Your task to perform on an android device: Go to calendar. Show me events next week Image 0: 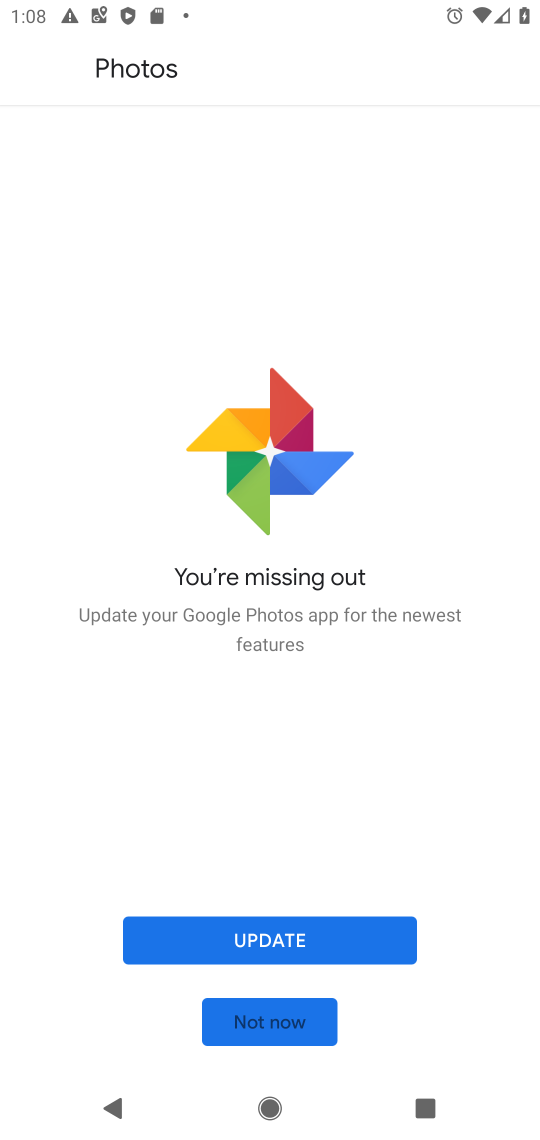
Step 0: press home button
Your task to perform on an android device: Go to calendar. Show me events next week Image 1: 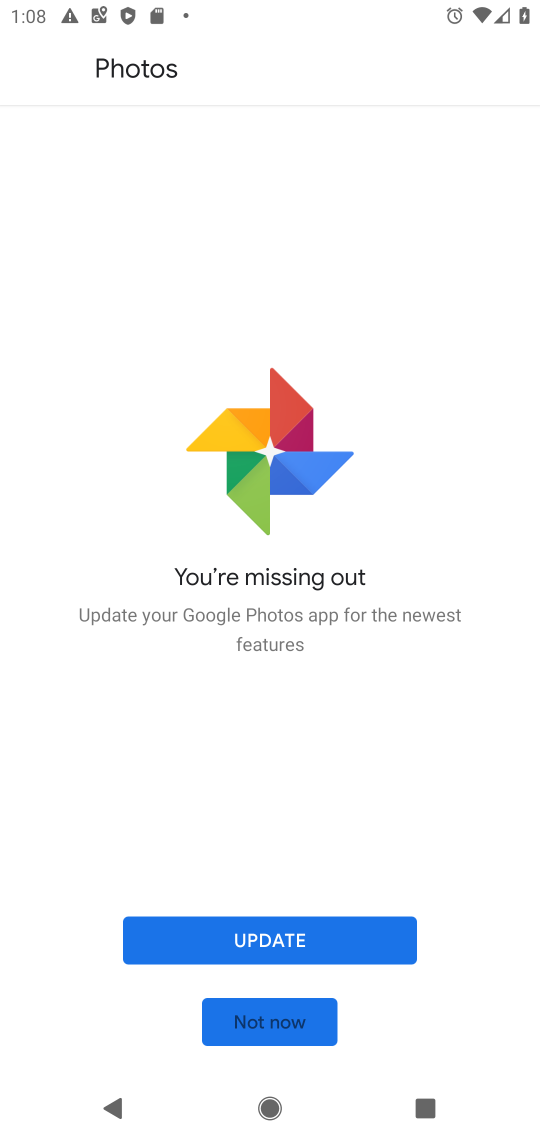
Step 1: press home button
Your task to perform on an android device: Go to calendar. Show me events next week Image 2: 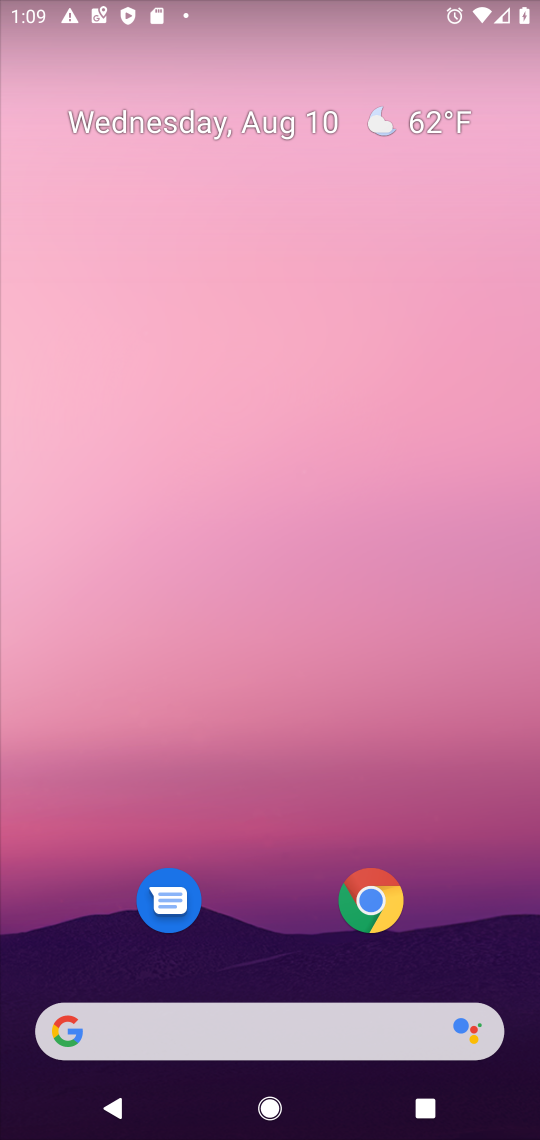
Step 2: drag from (299, 869) to (349, 4)
Your task to perform on an android device: Go to calendar. Show me events next week Image 3: 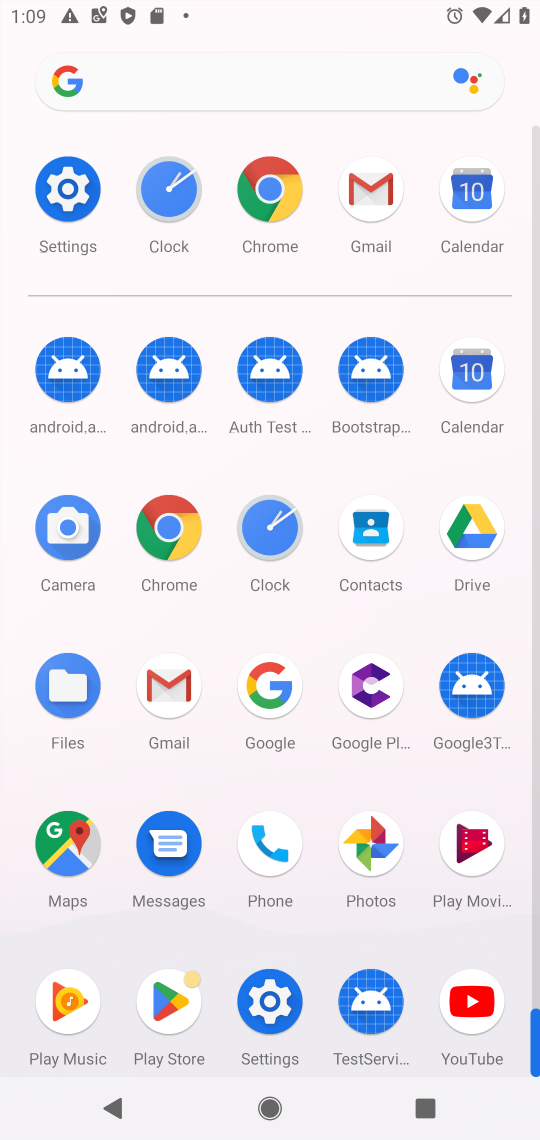
Step 3: click (459, 184)
Your task to perform on an android device: Go to calendar. Show me events next week Image 4: 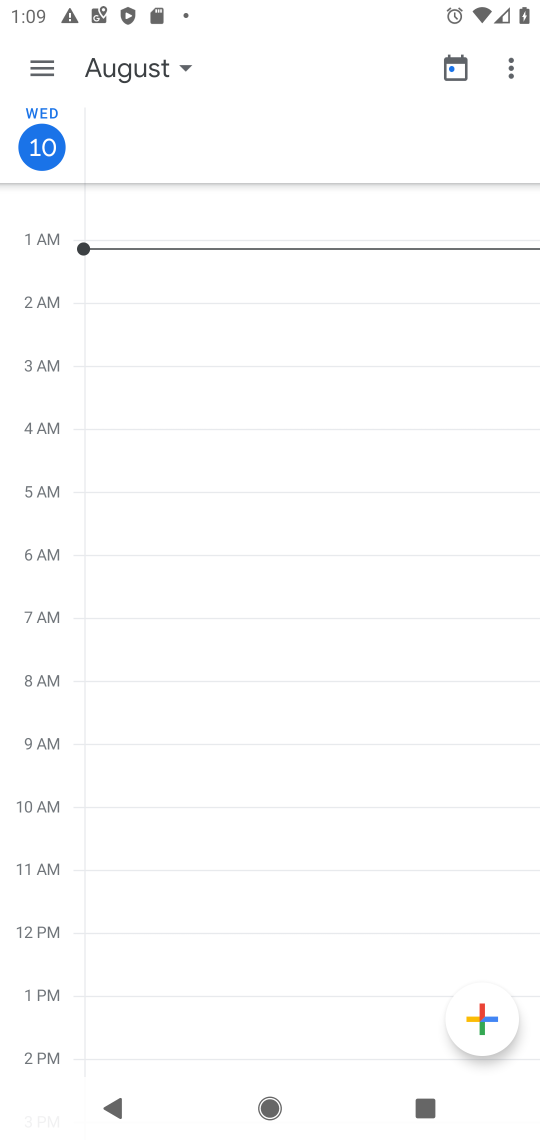
Step 4: click (47, 64)
Your task to perform on an android device: Go to calendar. Show me events next week Image 5: 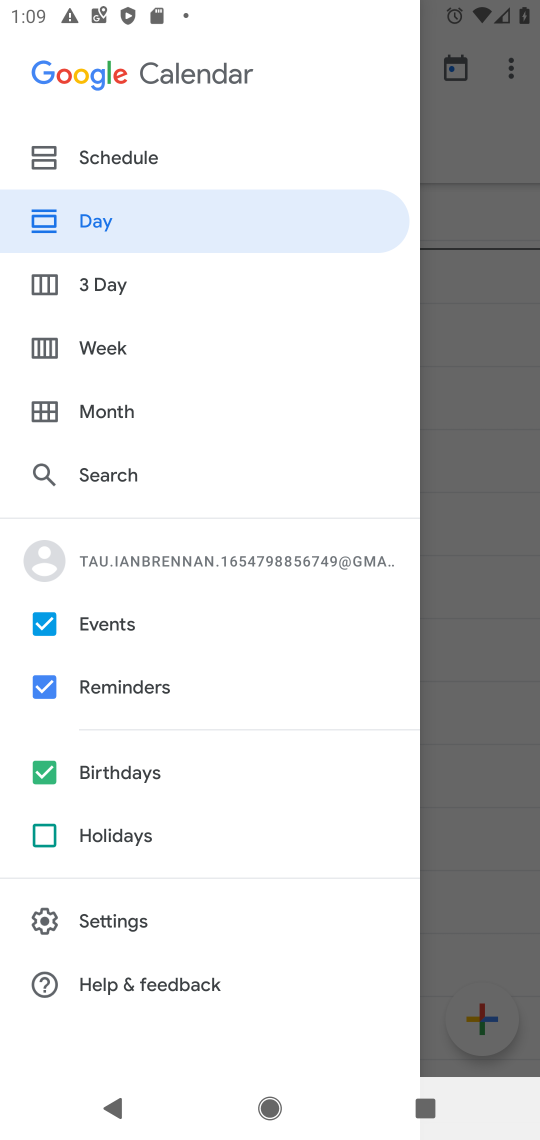
Step 5: click (44, 342)
Your task to perform on an android device: Go to calendar. Show me events next week Image 6: 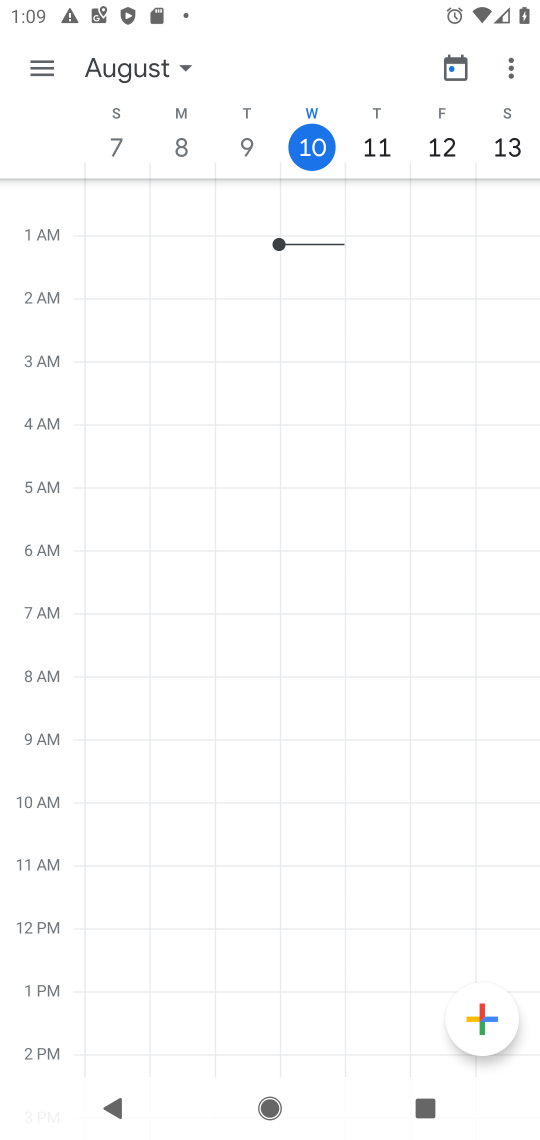
Step 6: task complete